Your task to perform on an android device: See recent photos Image 0: 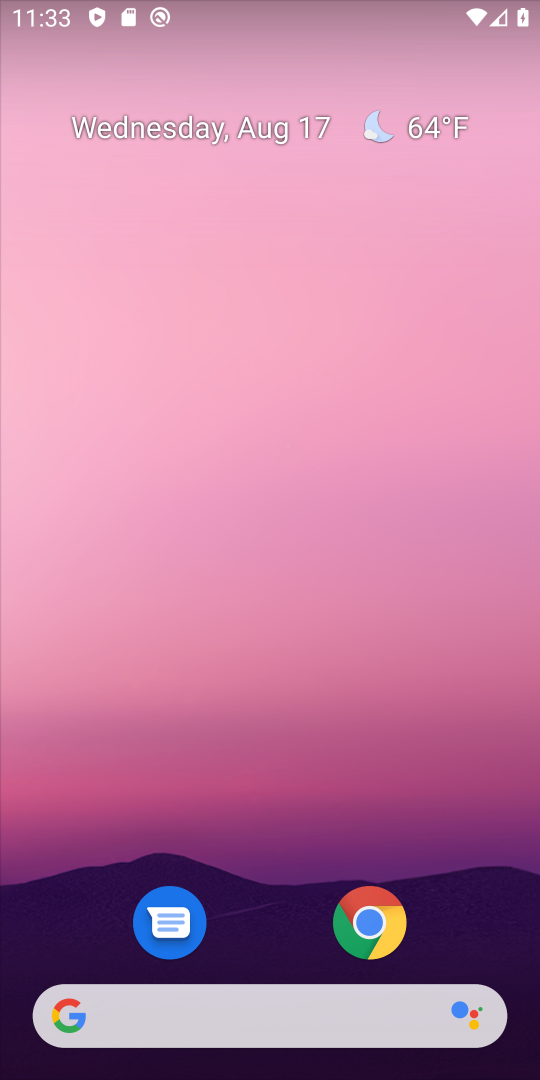
Step 0: drag from (273, 840) to (263, 167)
Your task to perform on an android device: See recent photos Image 1: 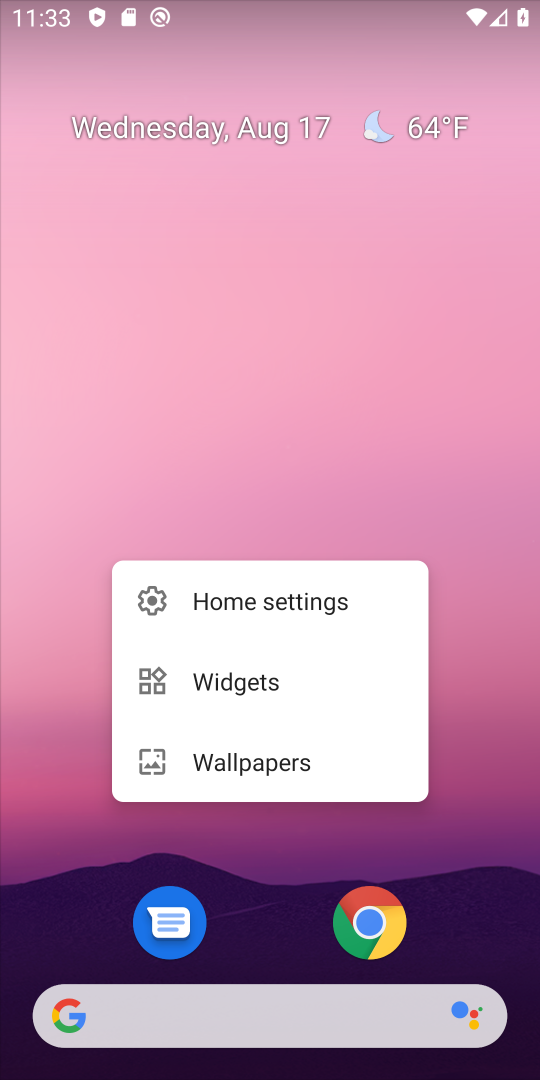
Step 1: click (282, 414)
Your task to perform on an android device: See recent photos Image 2: 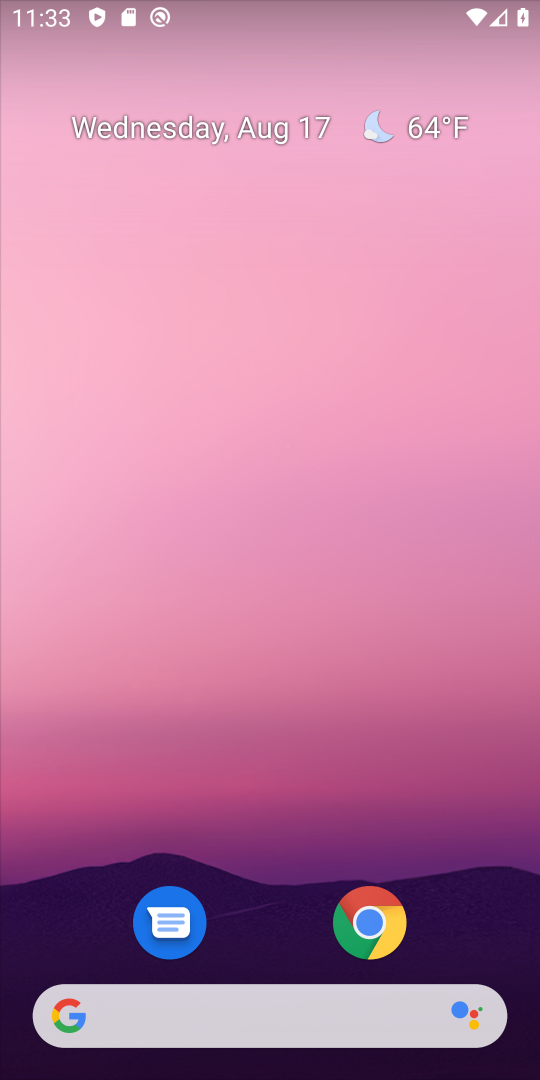
Step 2: drag from (274, 898) to (238, 155)
Your task to perform on an android device: See recent photos Image 3: 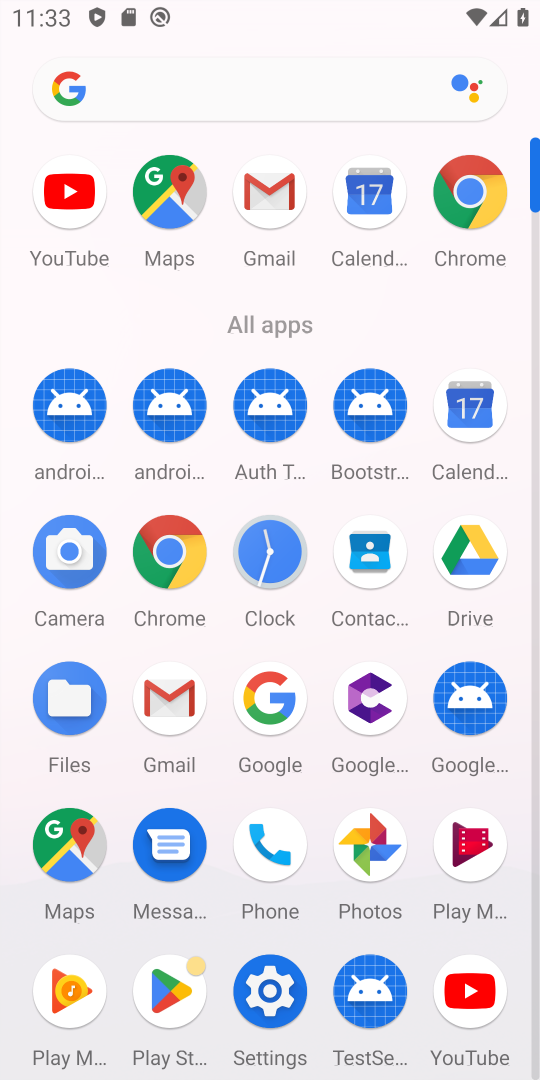
Step 3: click (373, 848)
Your task to perform on an android device: See recent photos Image 4: 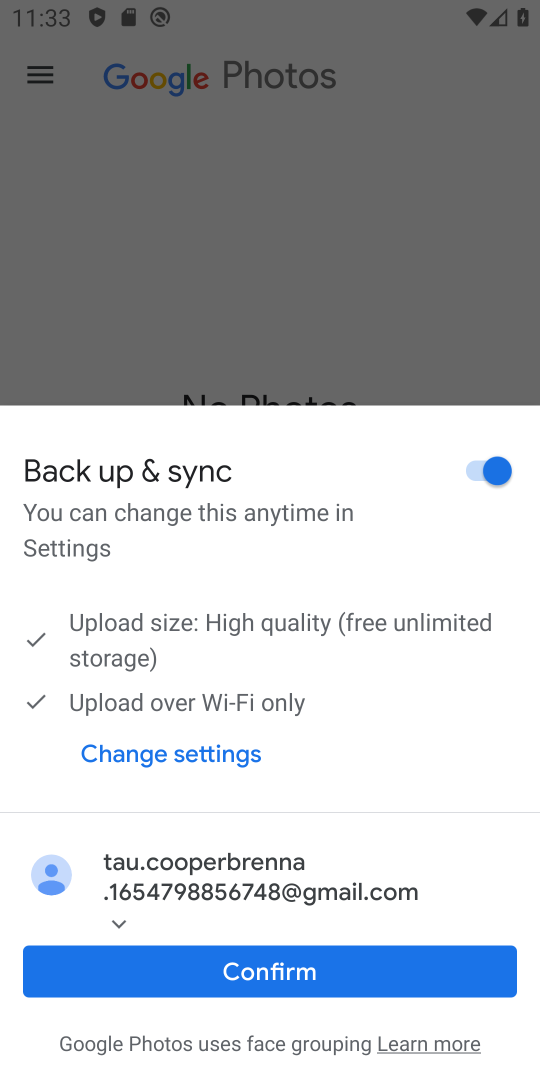
Step 4: click (290, 956)
Your task to perform on an android device: See recent photos Image 5: 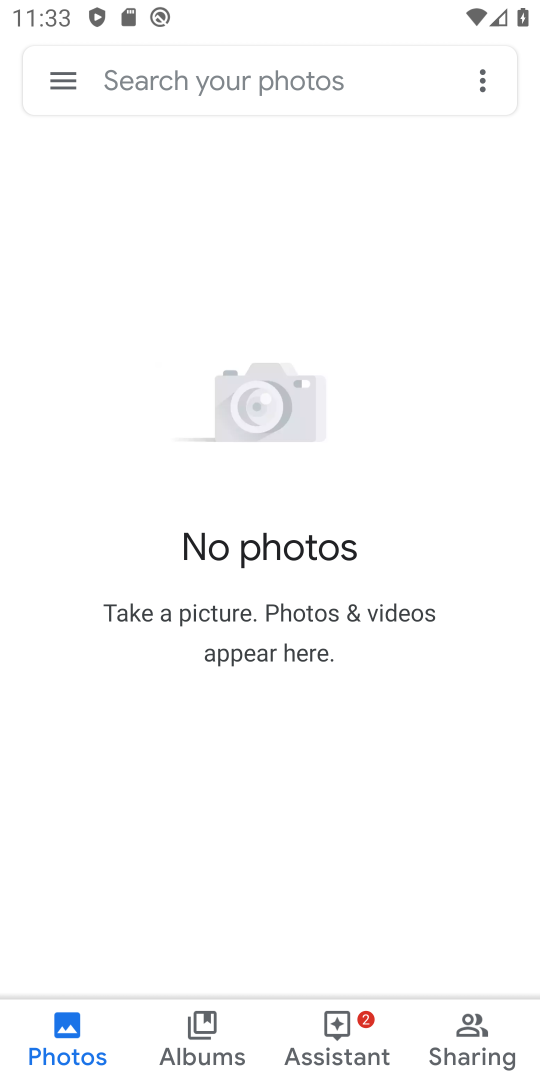
Step 5: task complete